Your task to perform on an android device: turn off notifications in google photos Image 0: 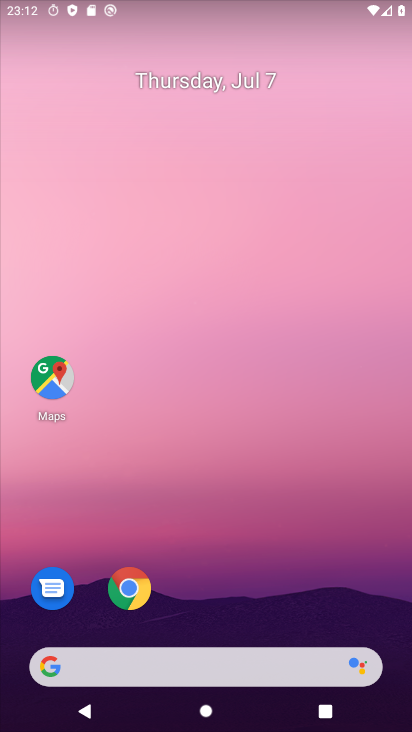
Step 0: drag from (293, 625) to (275, 94)
Your task to perform on an android device: turn off notifications in google photos Image 1: 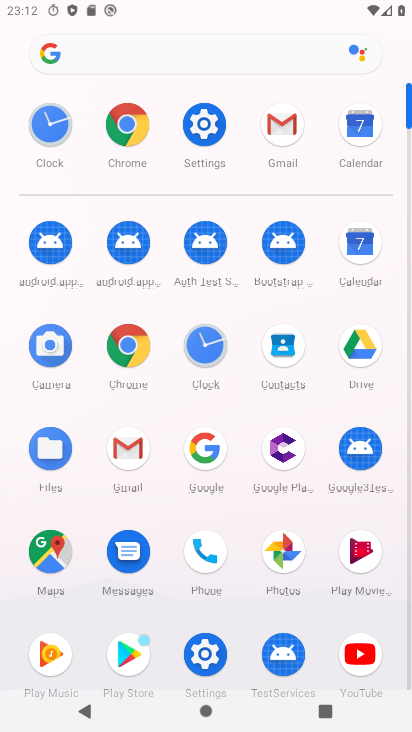
Step 1: click (281, 551)
Your task to perform on an android device: turn off notifications in google photos Image 2: 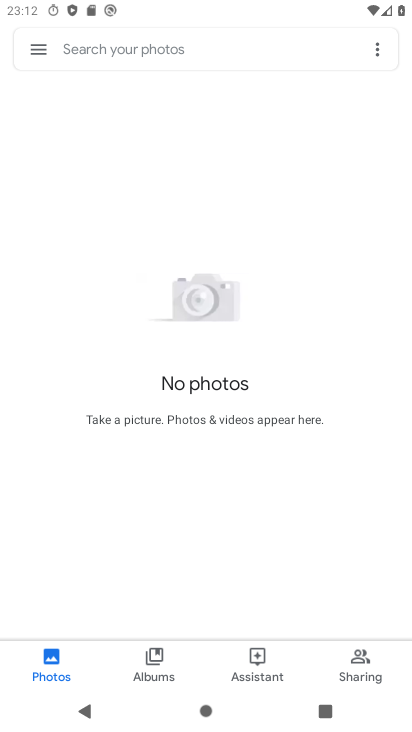
Step 2: click (36, 43)
Your task to perform on an android device: turn off notifications in google photos Image 3: 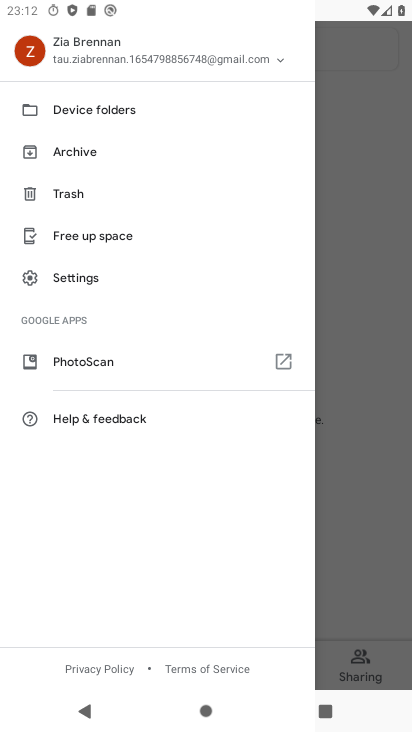
Step 3: click (88, 288)
Your task to perform on an android device: turn off notifications in google photos Image 4: 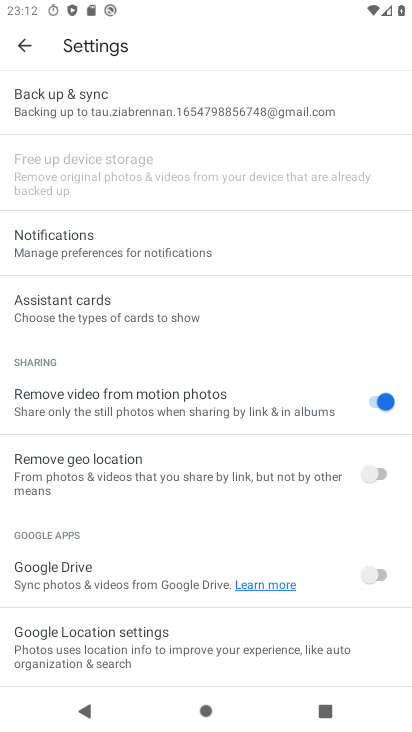
Step 4: click (87, 256)
Your task to perform on an android device: turn off notifications in google photos Image 5: 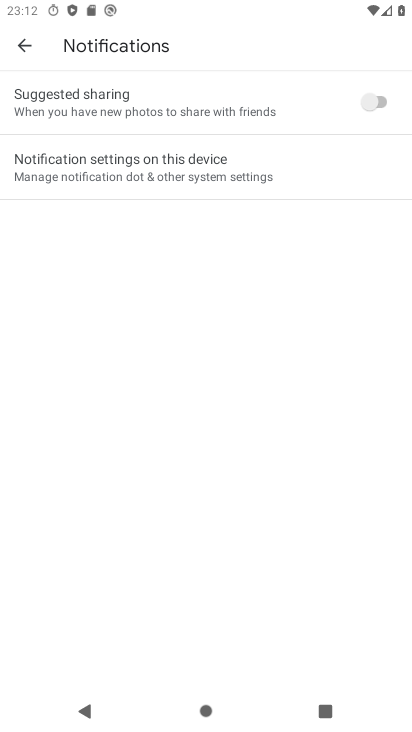
Step 5: click (118, 191)
Your task to perform on an android device: turn off notifications in google photos Image 6: 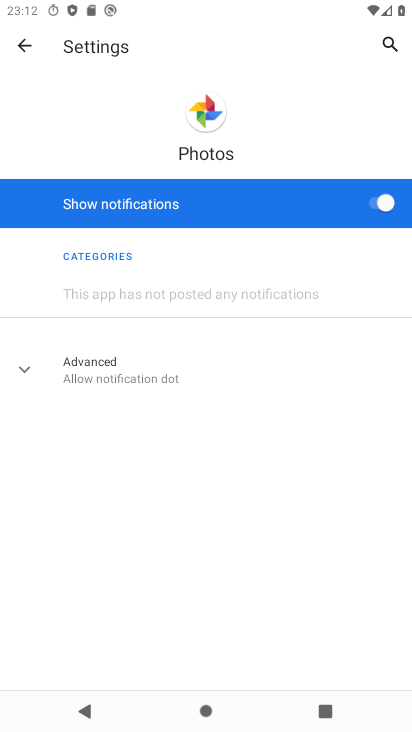
Step 6: click (379, 199)
Your task to perform on an android device: turn off notifications in google photos Image 7: 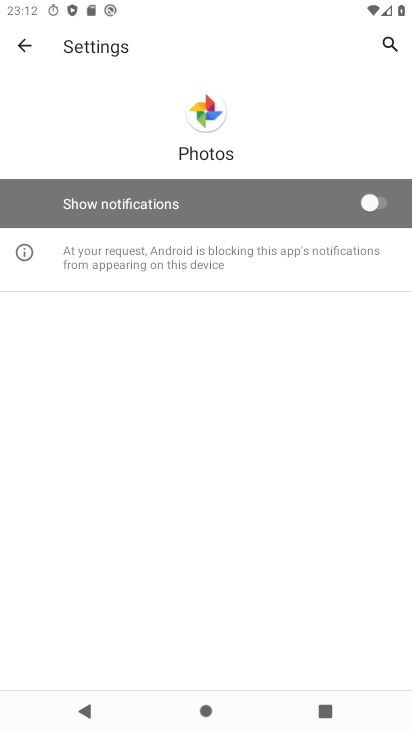
Step 7: task complete